Your task to perform on an android device: visit the assistant section in the google photos Image 0: 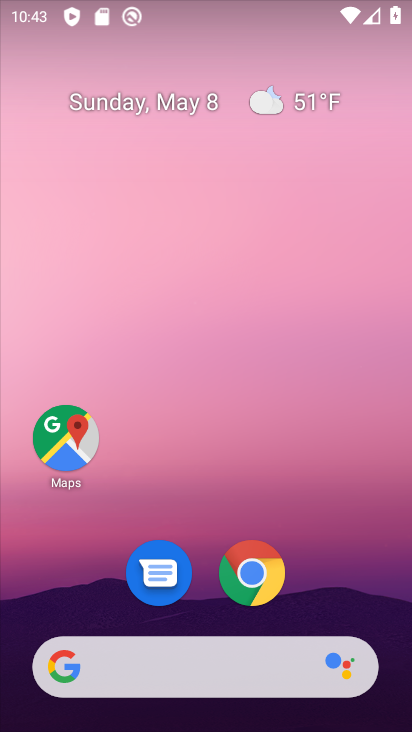
Step 0: drag from (189, 634) to (220, 240)
Your task to perform on an android device: visit the assistant section in the google photos Image 1: 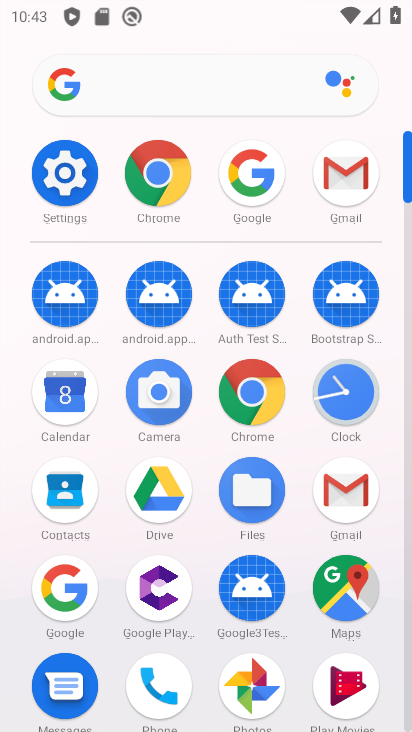
Step 1: click (253, 686)
Your task to perform on an android device: visit the assistant section in the google photos Image 2: 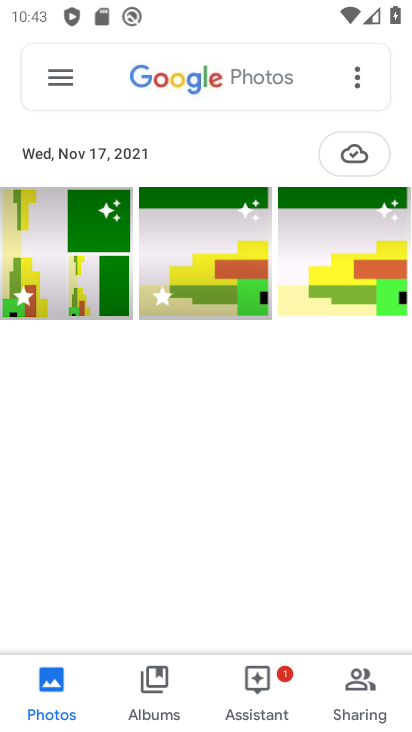
Step 2: click (256, 686)
Your task to perform on an android device: visit the assistant section in the google photos Image 3: 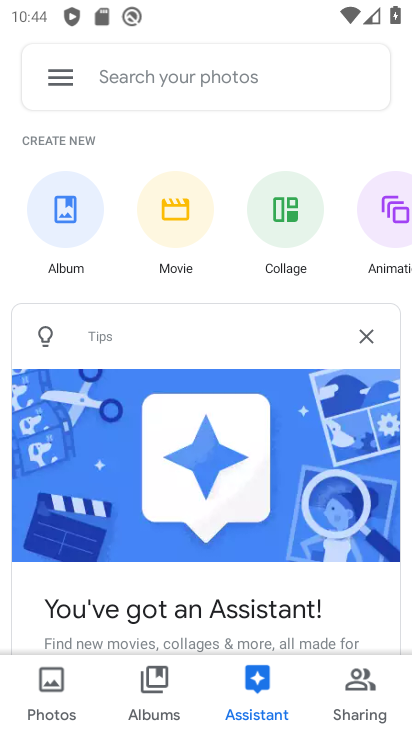
Step 3: task complete